Your task to perform on an android device: Open Youtube and go to the subscriptions tab Image 0: 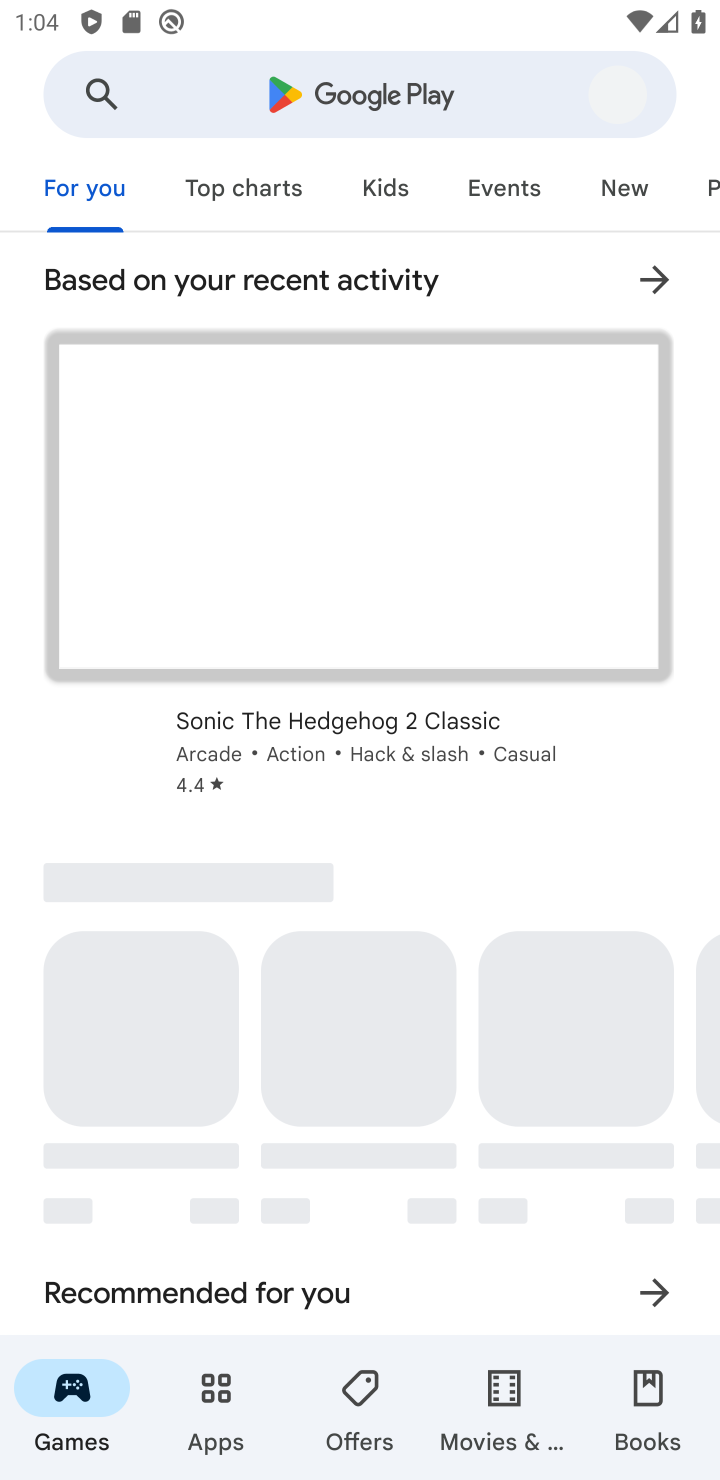
Step 0: press home button
Your task to perform on an android device: Open Youtube and go to the subscriptions tab Image 1: 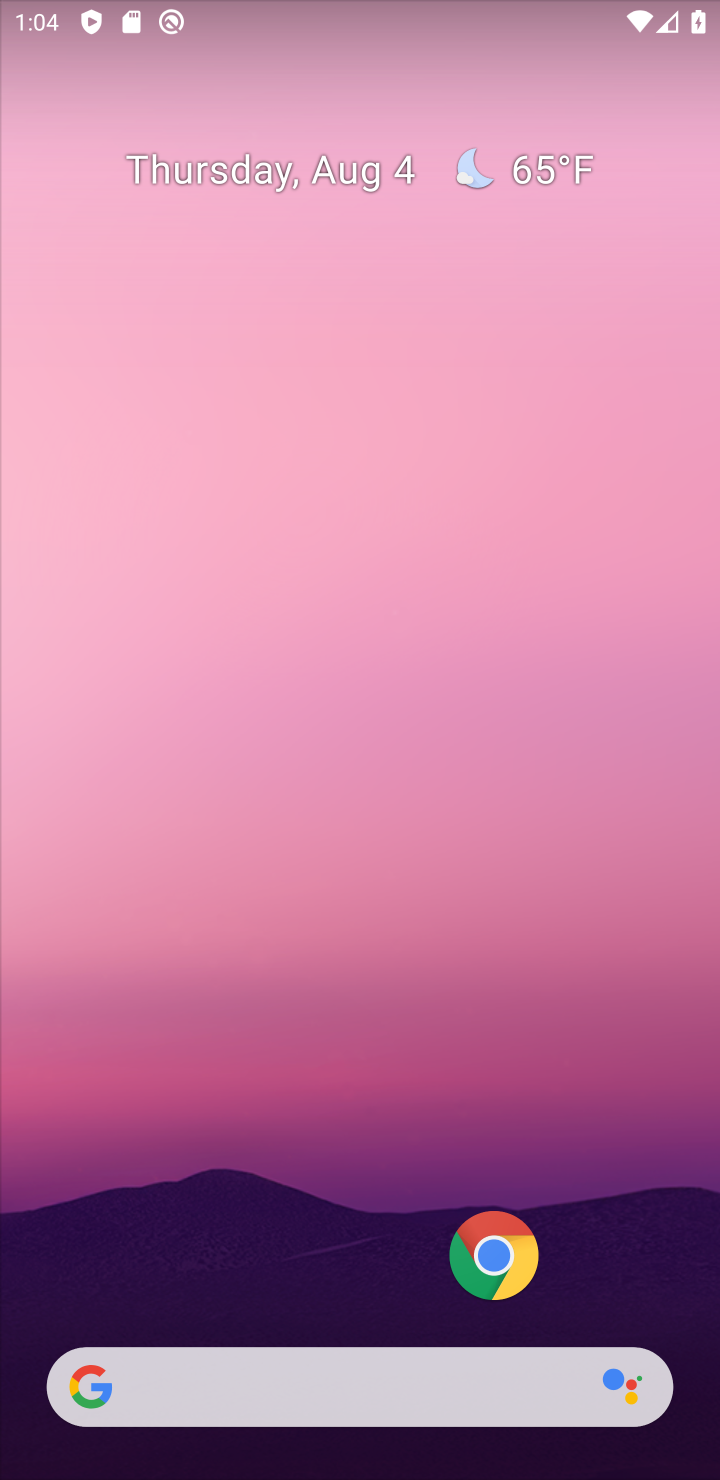
Step 1: drag from (364, 940) to (444, 238)
Your task to perform on an android device: Open Youtube and go to the subscriptions tab Image 2: 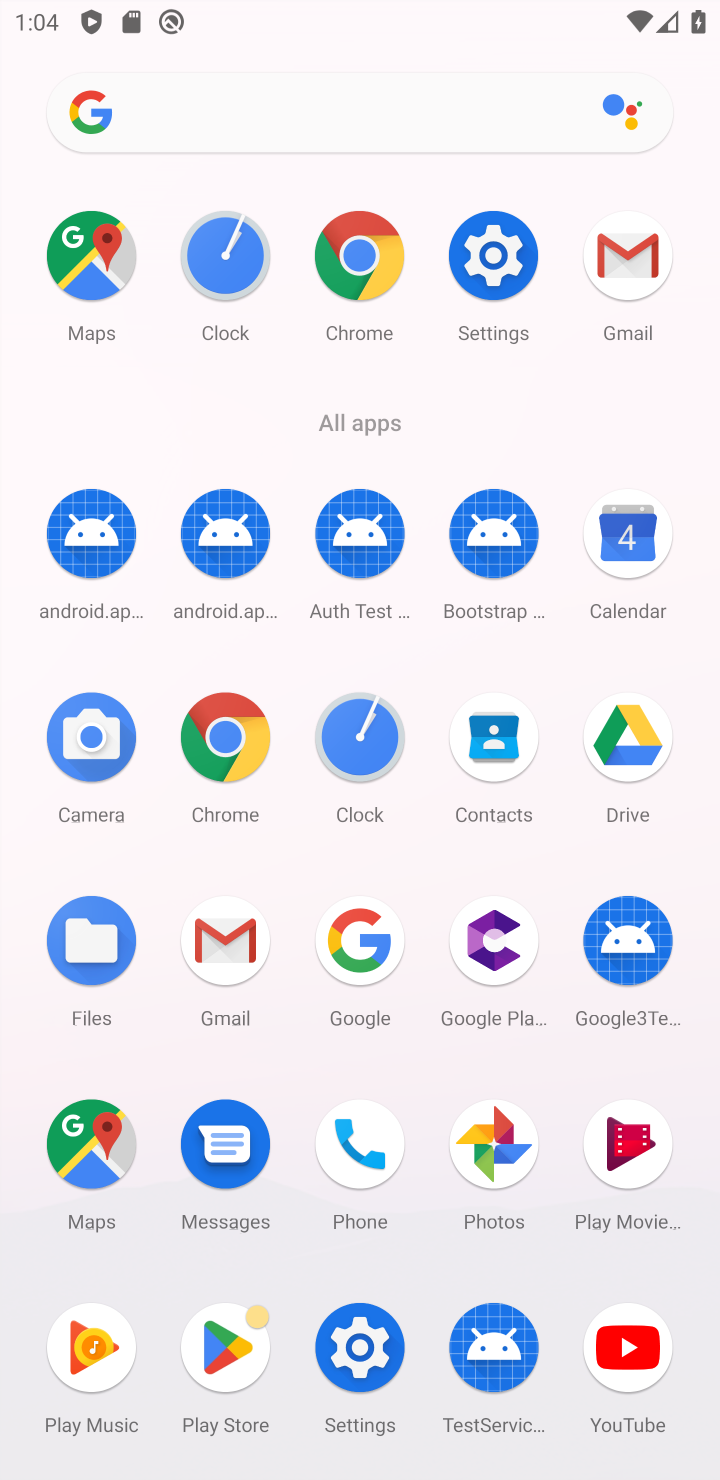
Step 2: click (631, 1373)
Your task to perform on an android device: Open Youtube and go to the subscriptions tab Image 3: 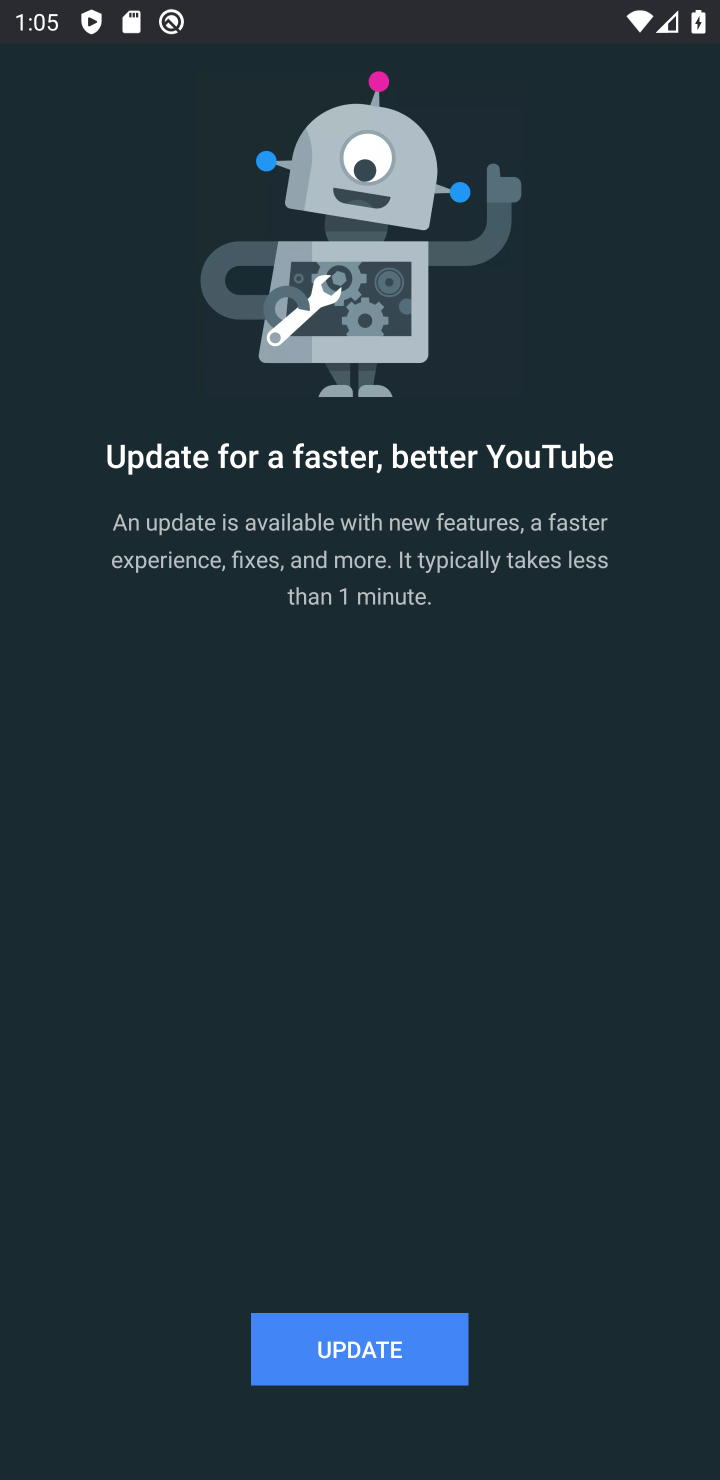
Step 3: click (391, 1346)
Your task to perform on an android device: Open Youtube and go to the subscriptions tab Image 4: 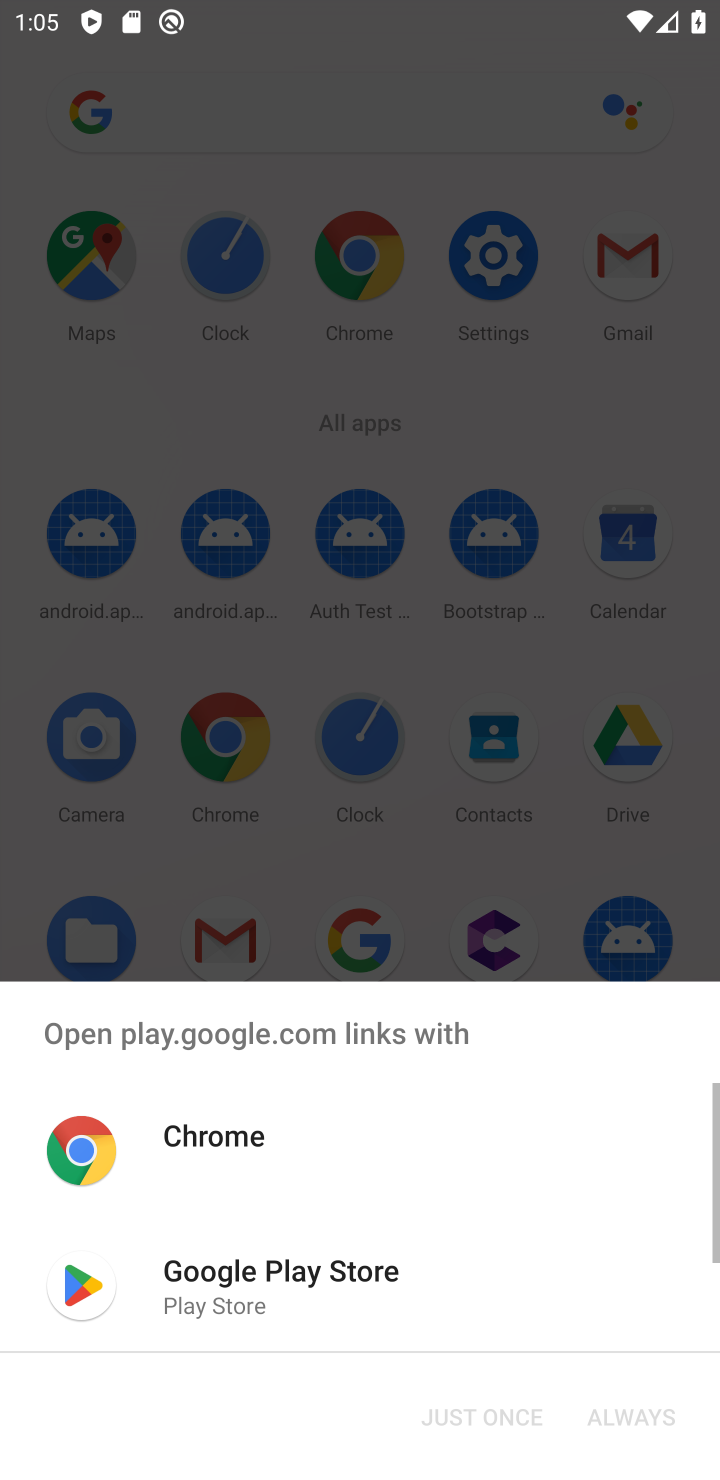
Step 4: click (193, 1143)
Your task to perform on an android device: Open Youtube and go to the subscriptions tab Image 5: 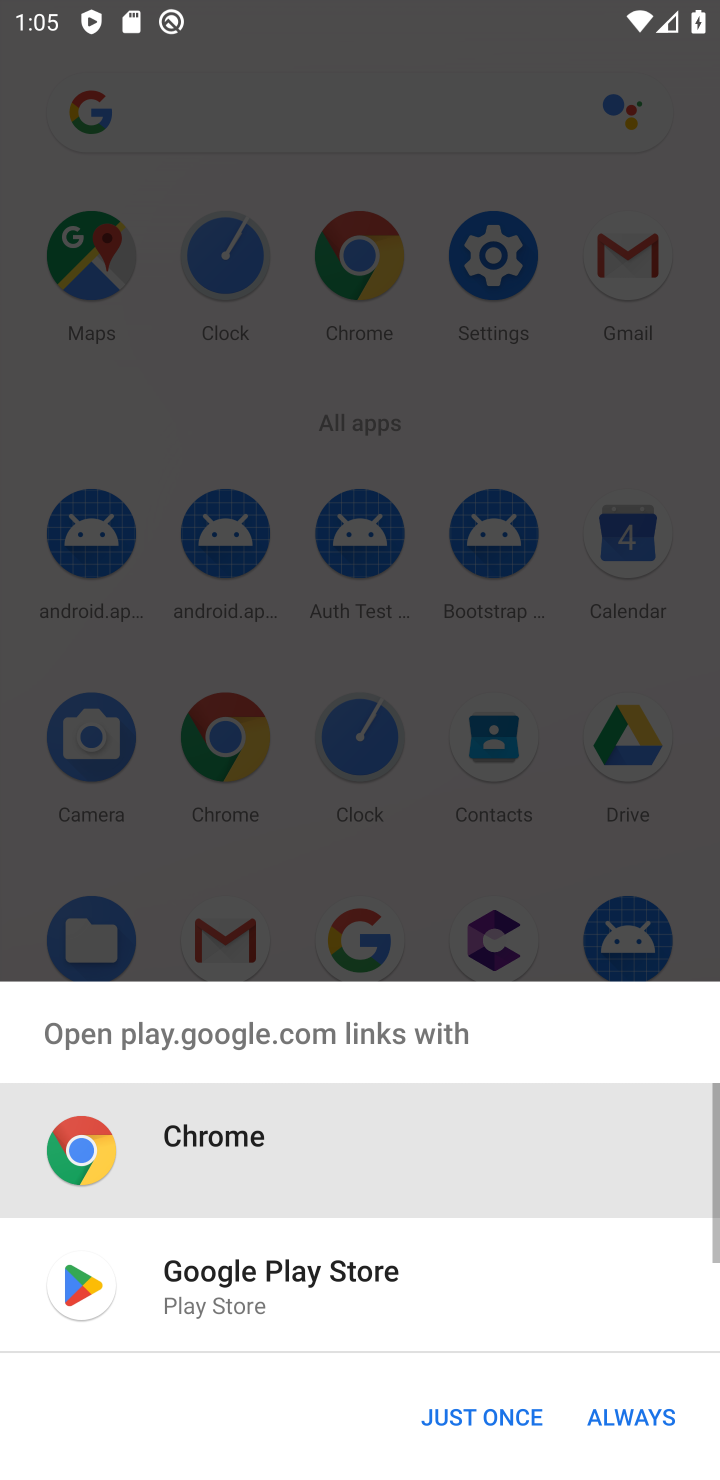
Step 5: click (475, 1420)
Your task to perform on an android device: Open Youtube and go to the subscriptions tab Image 6: 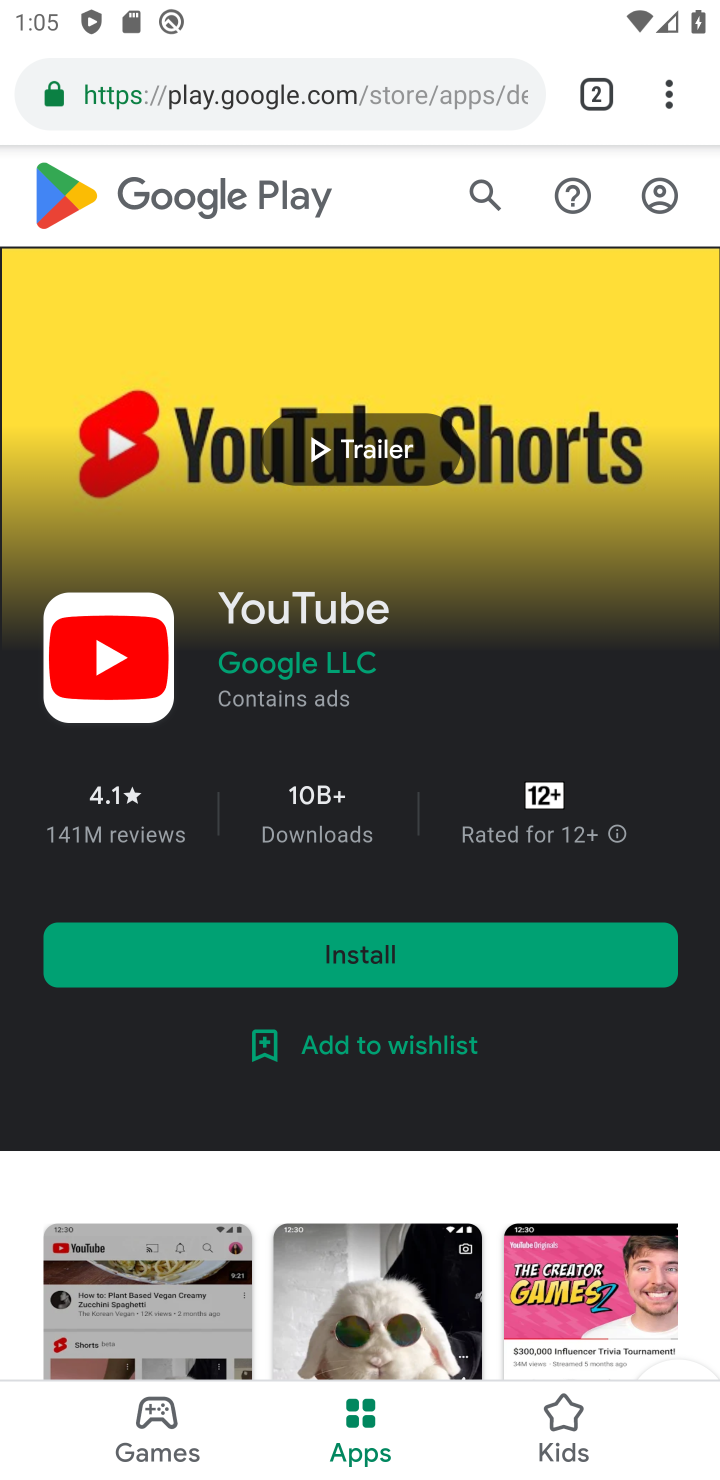
Step 6: press back button
Your task to perform on an android device: Open Youtube and go to the subscriptions tab Image 7: 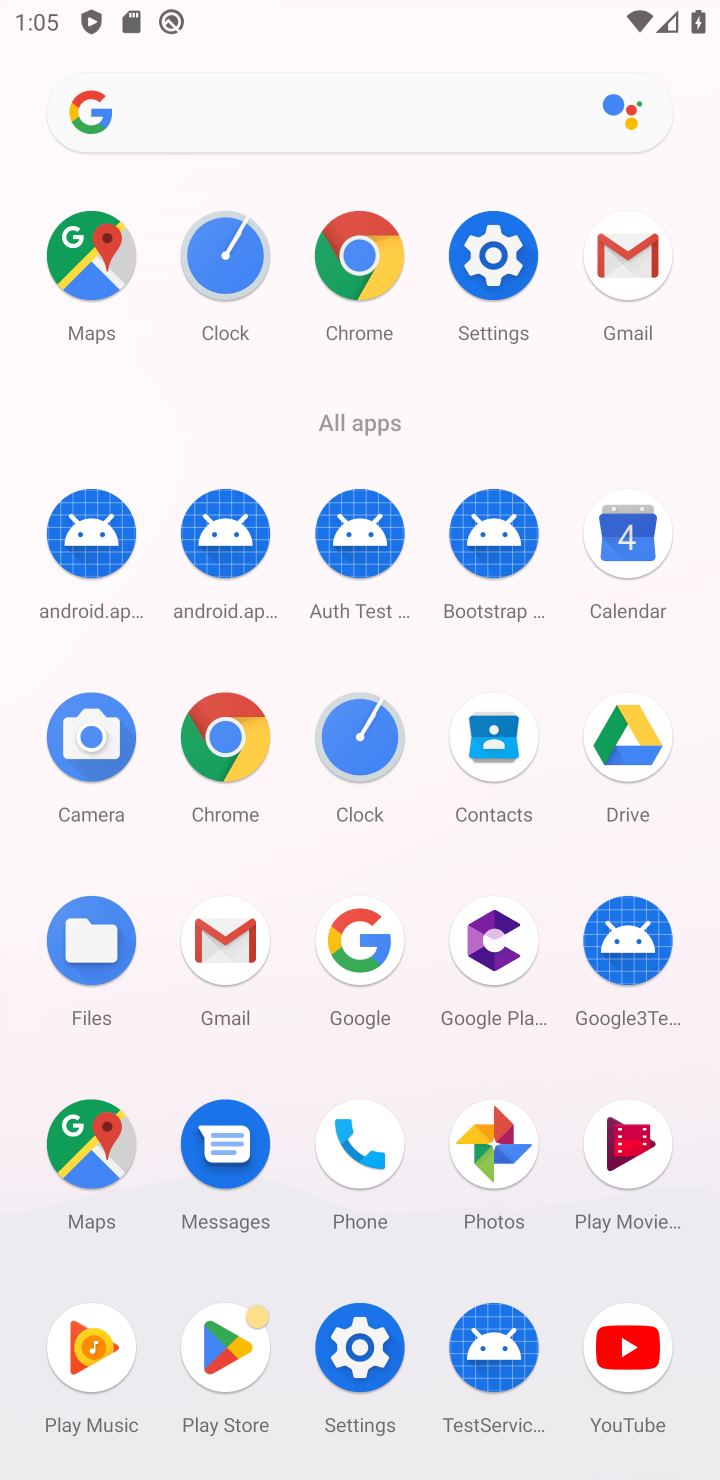
Step 7: click (631, 1381)
Your task to perform on an android device: Open Youtube and go to the subscriptions tab Image 8: 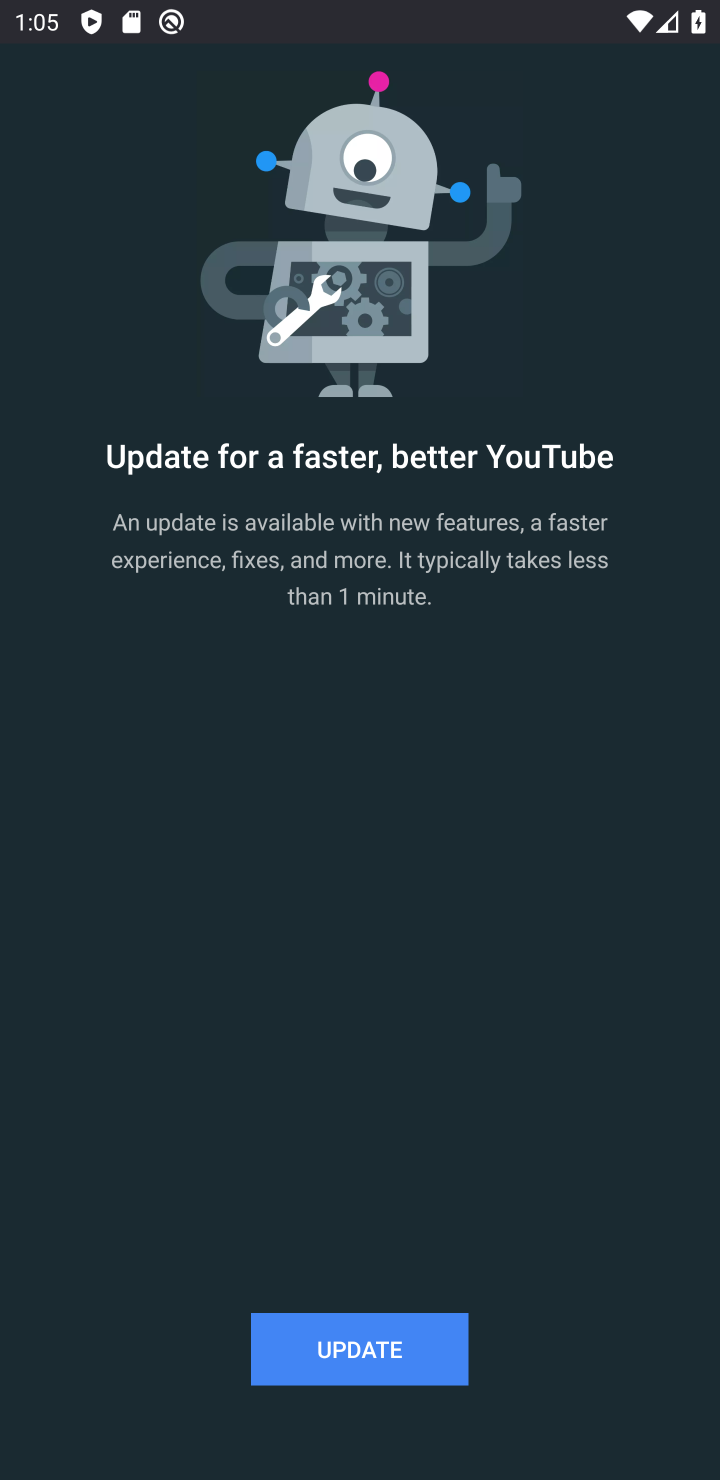
Step 8: click (502, 1371)
Your task to perform on an android device: Open Youtube and go to the subscriptions tab Image 9: 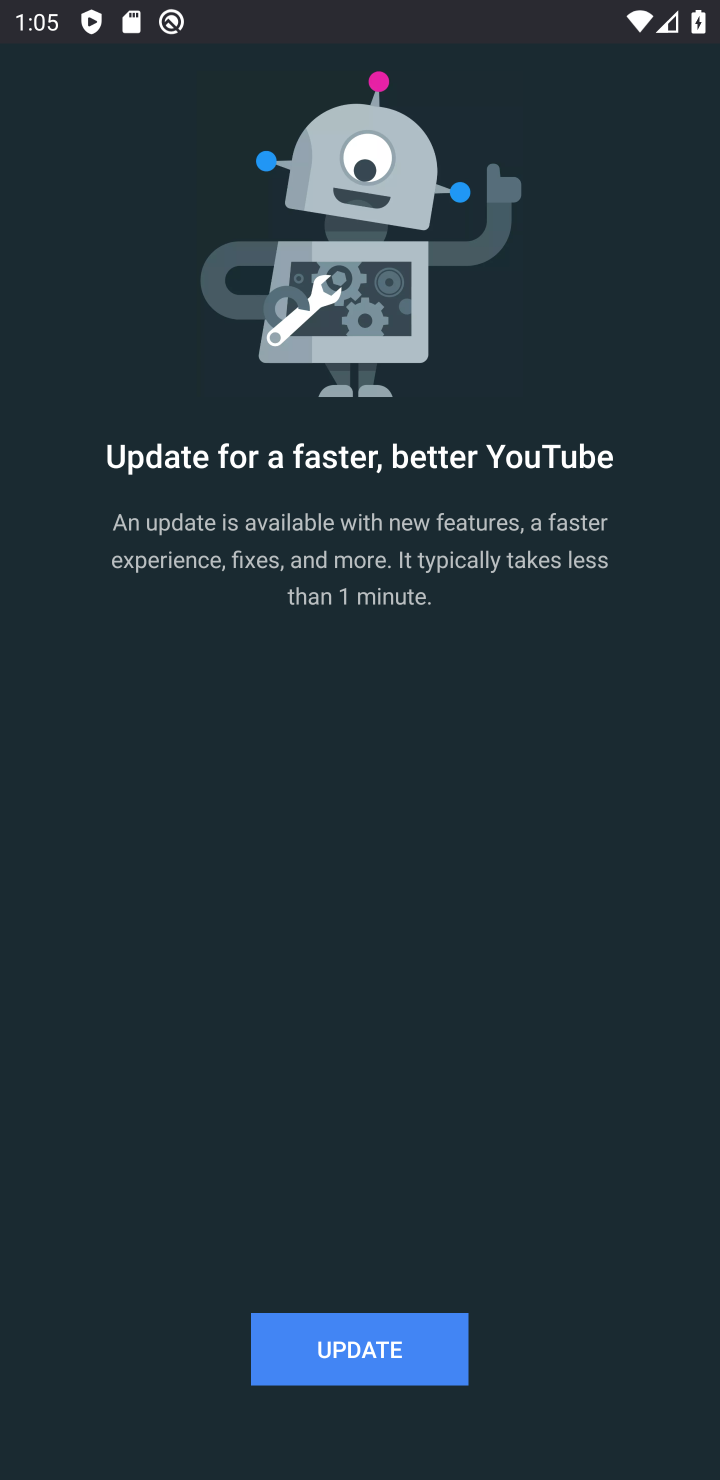
Step 9: click (434, 1362)
Your task to perform on an android device: Open Youtube and go to the subscriptions tab Image 10: 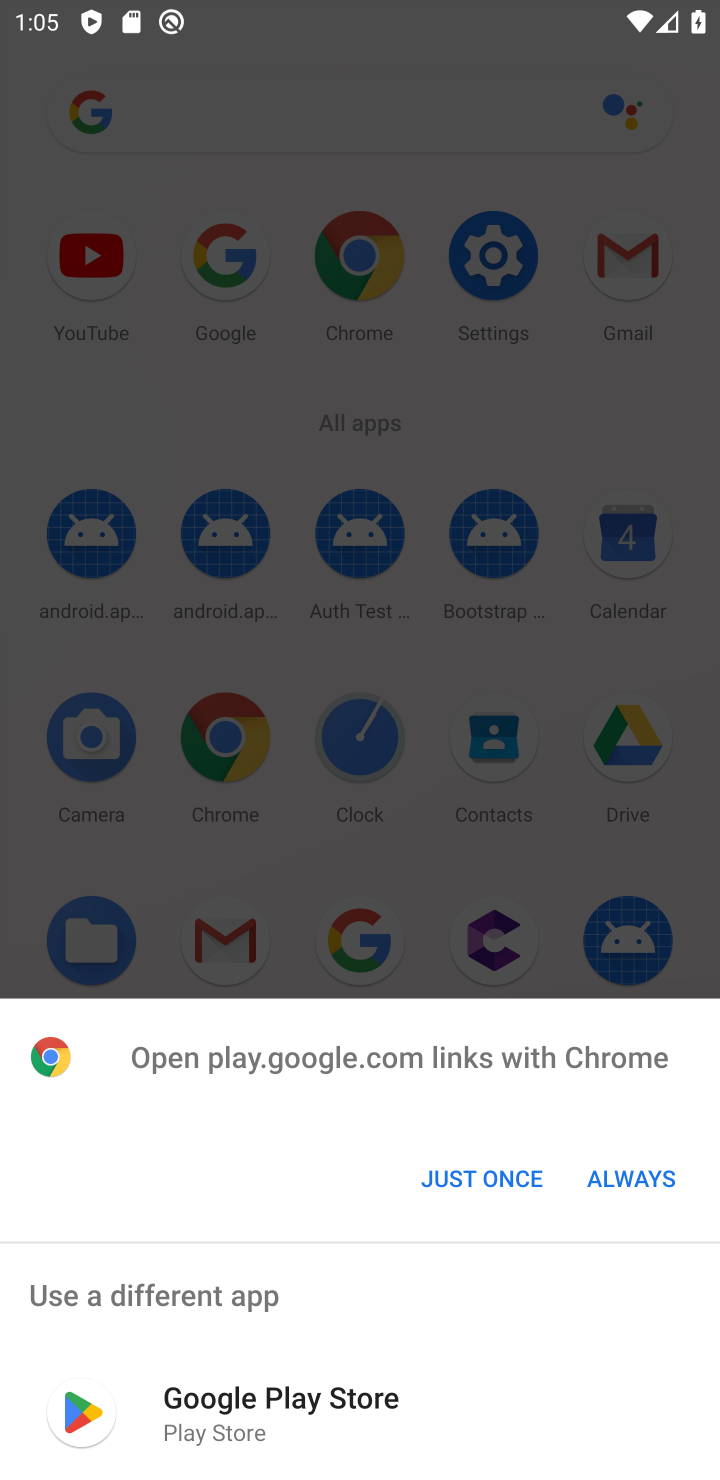
Step 10: click (204, 1398)
Your task to perform on an android device: Open Youtube and go to the subscriptions tab Image 11: 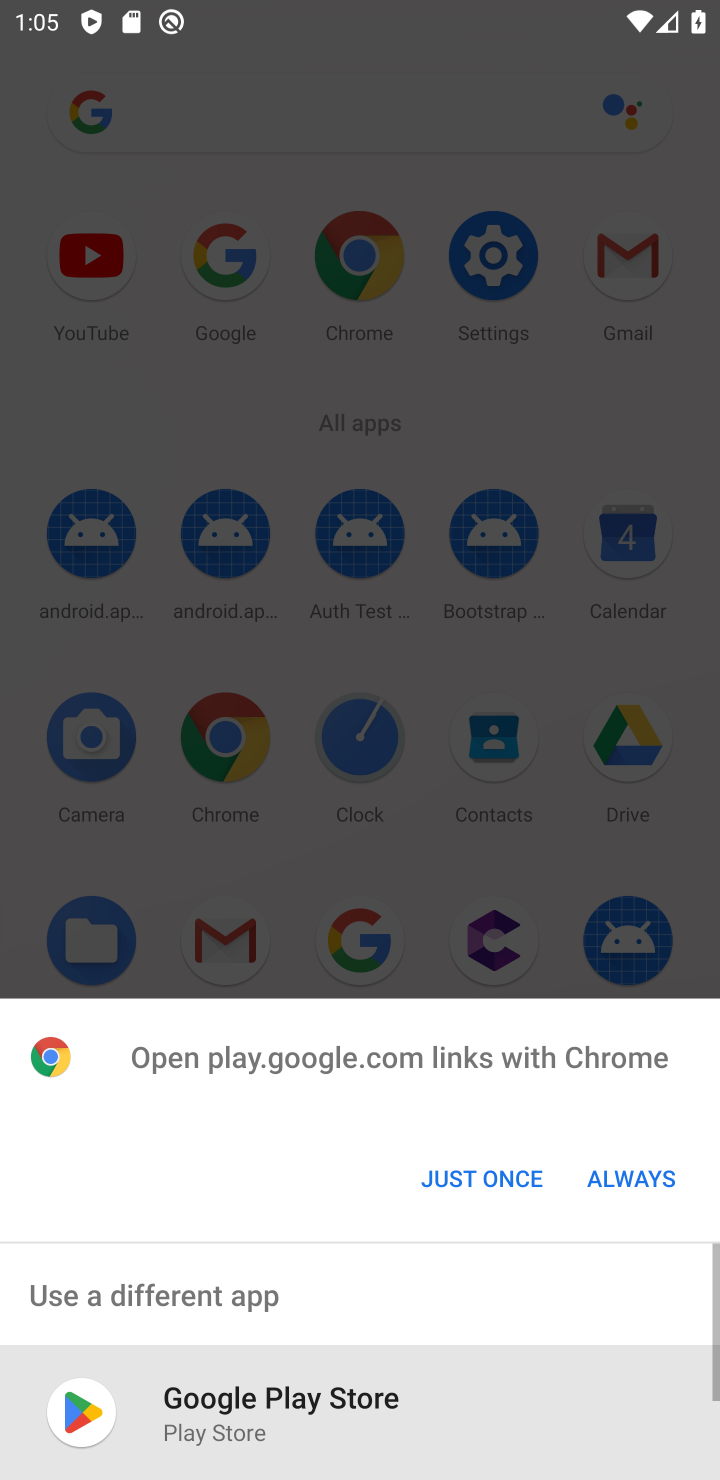
Step 11: click (452, 1174)
Your task to perform on an android device: Open Youtube and go to the subscriptions tab Image 12: 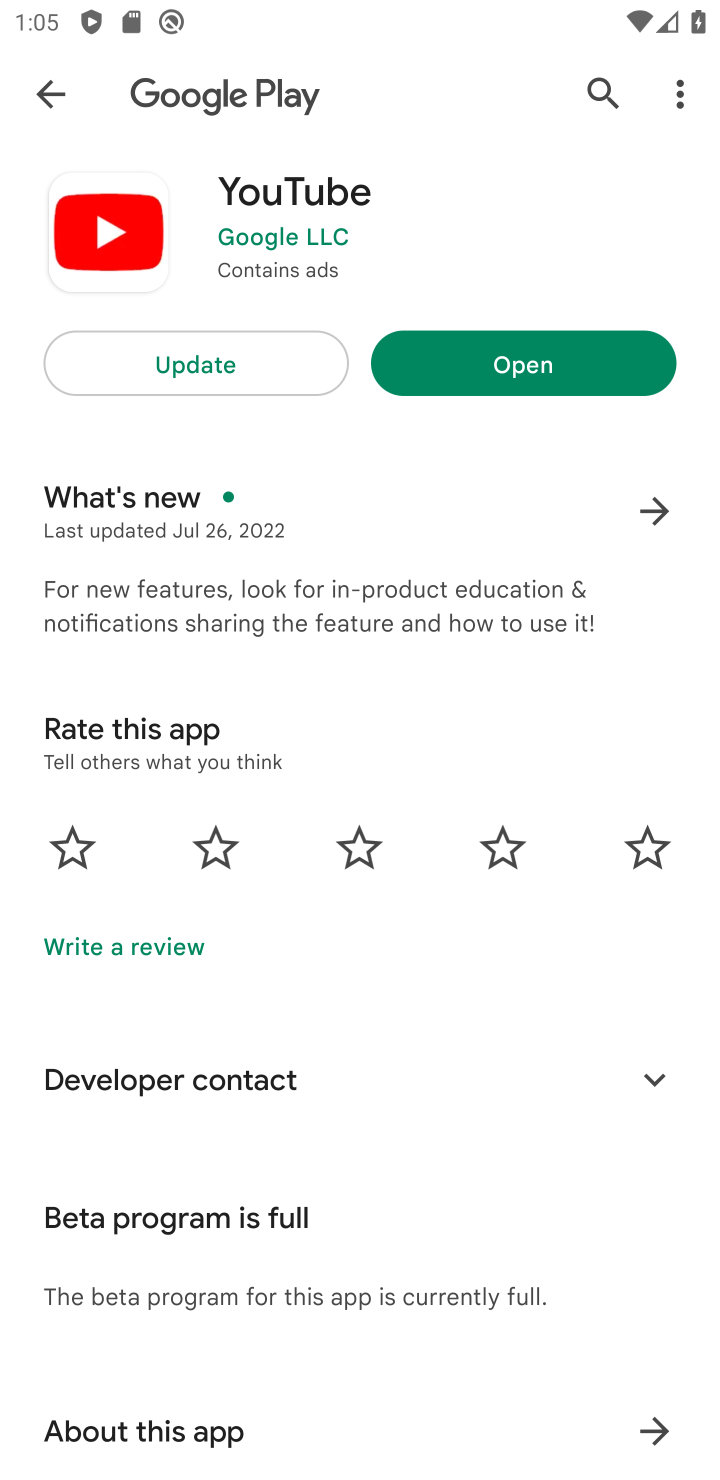
Step 12: click (207, 380)
Your task to perform on an android device: Open Youtube and go to the subscriptions tab Image 13: 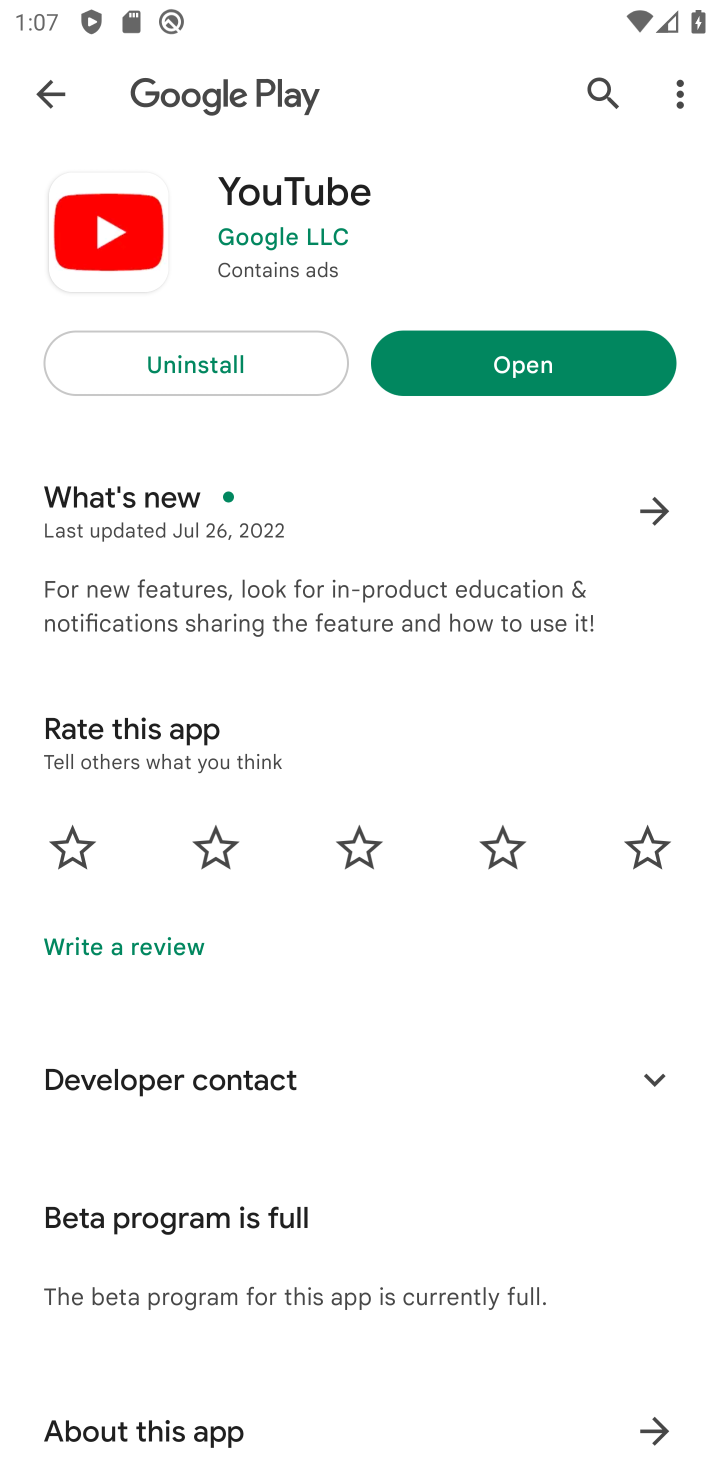
Step 13: click (518, 365)
Your task to perform on an android device: Open Youtube and go to the subscriptions tab Image 14: 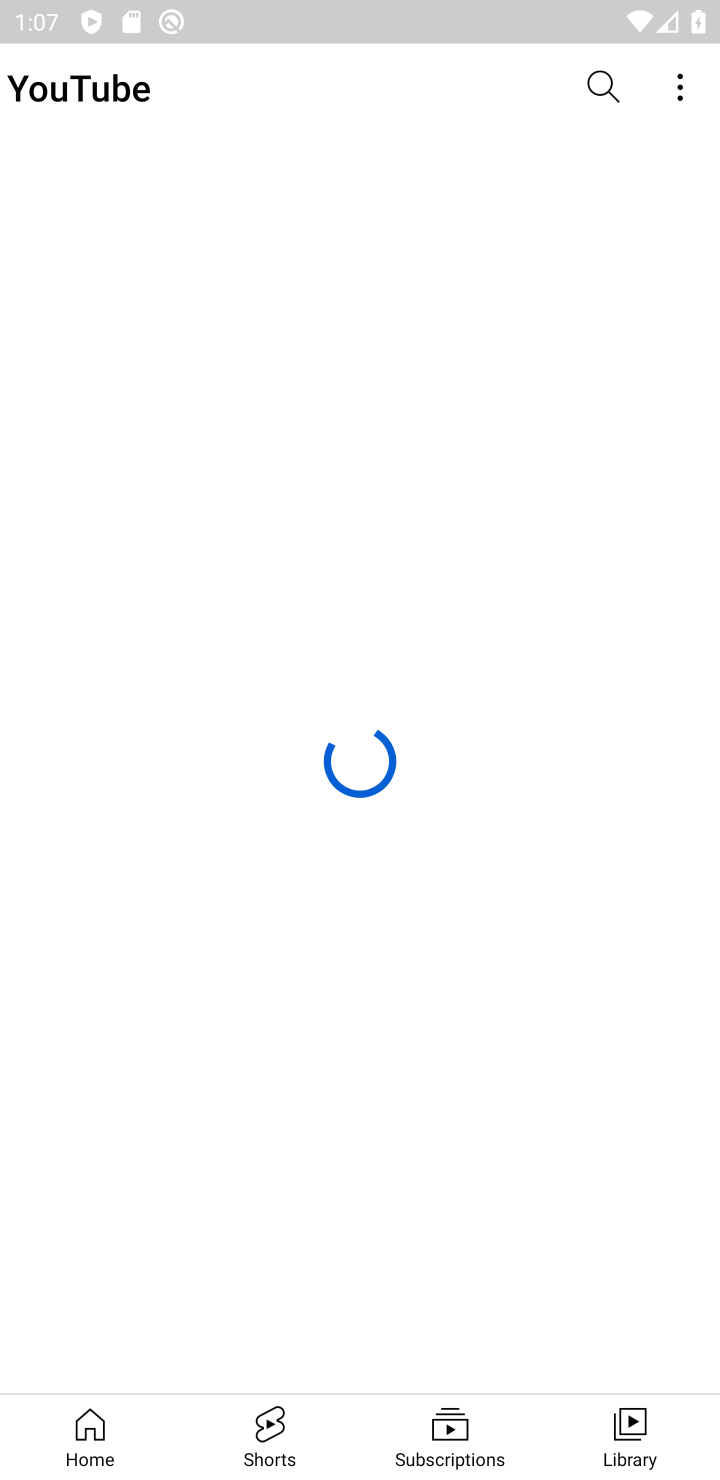
Step 14: click (473, 1472)
Your task to perform on an android device: Open Youtube and go to the subscriptions tab Image 15: 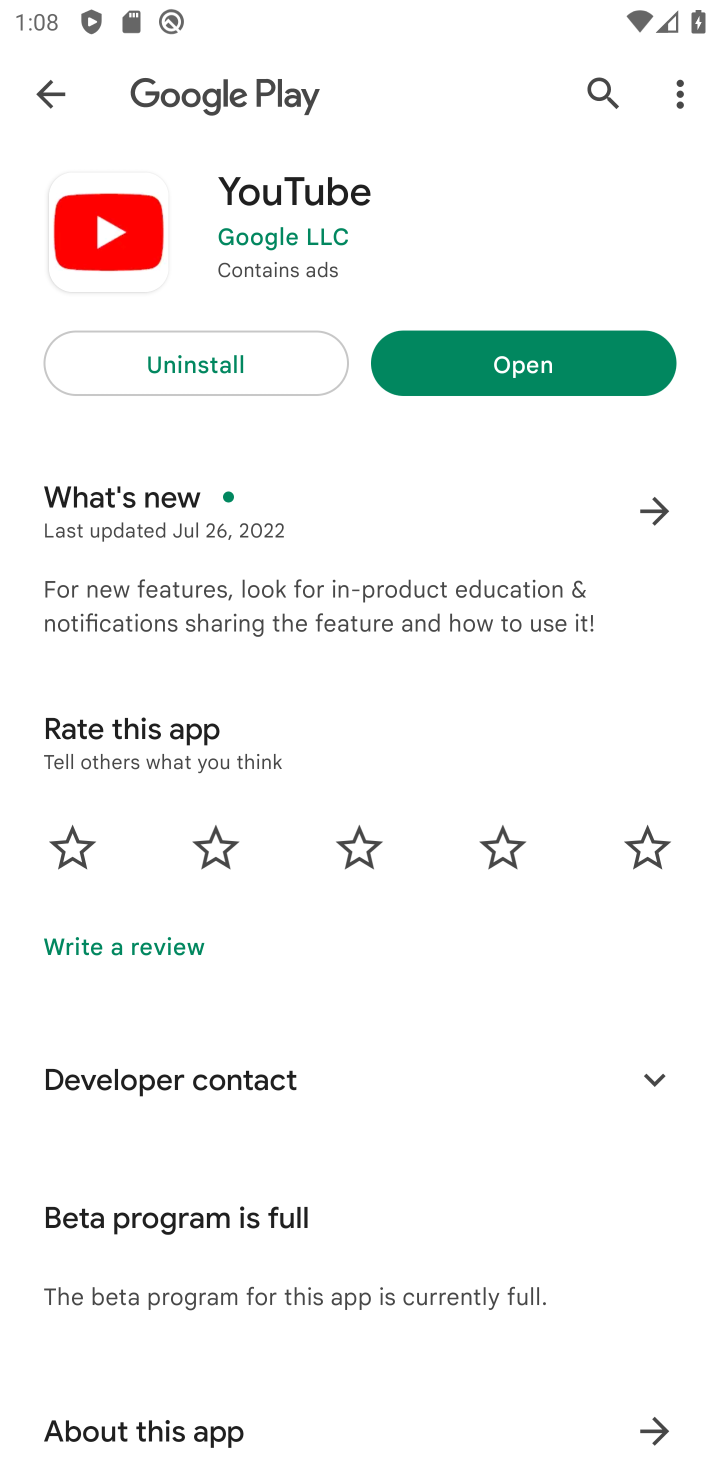
Step 15: click (456, 371)
Your task to perform on an android device: Open Youtube and go to the subscriptions tab Image 16: 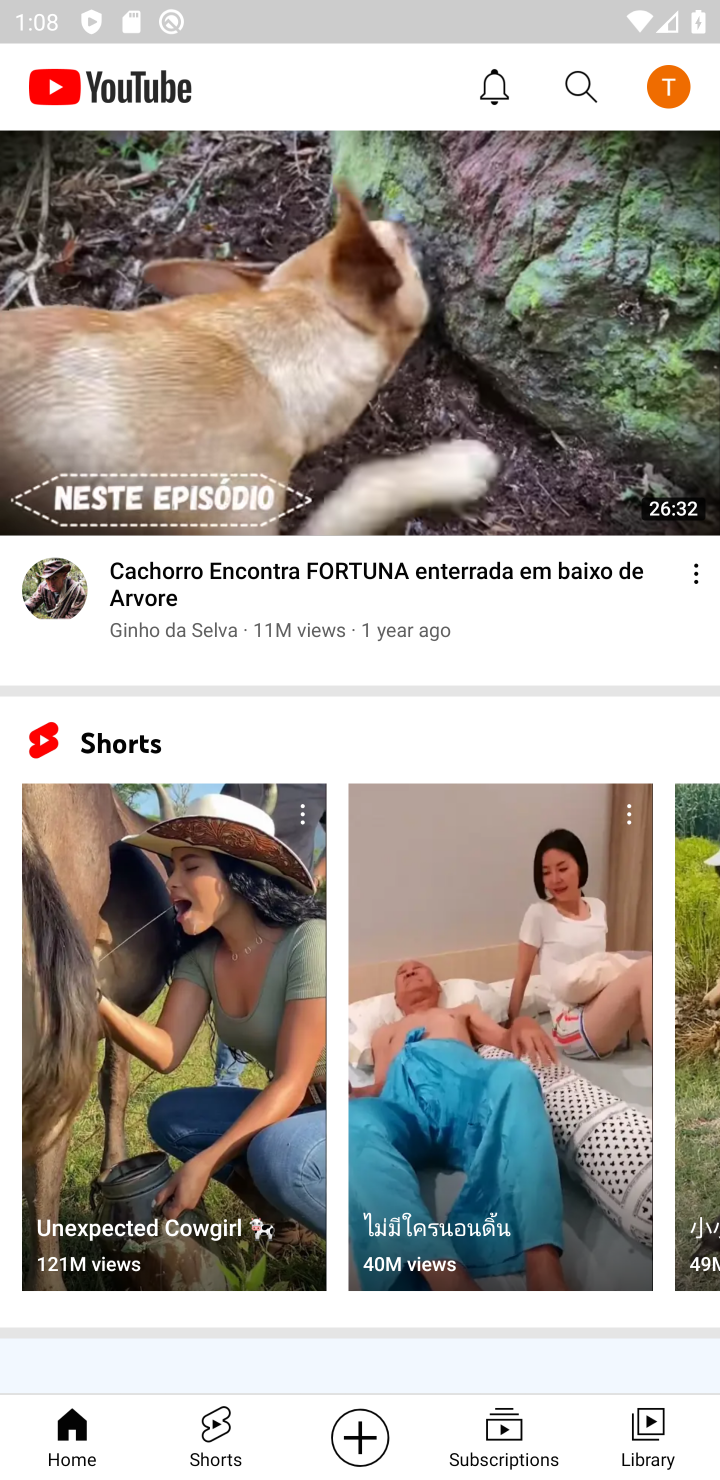
Step 16: click (524, 1431)
Your task to perform on an android device: Open Youtube and go to the subscriptions tab Image 17: 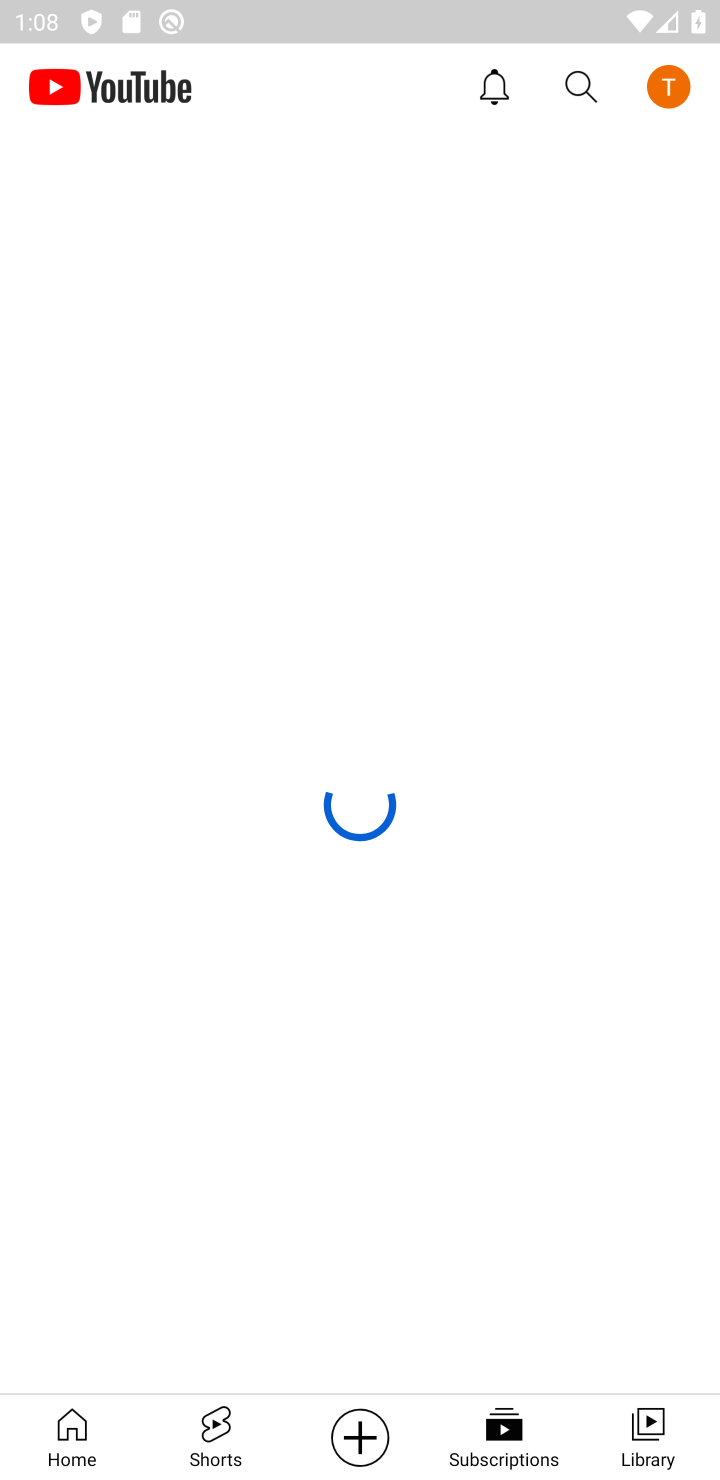
Step 17: click (495, 1443)
Your task to perform on an android device: Open Youtube and go to the subscriptions tab Image 18: 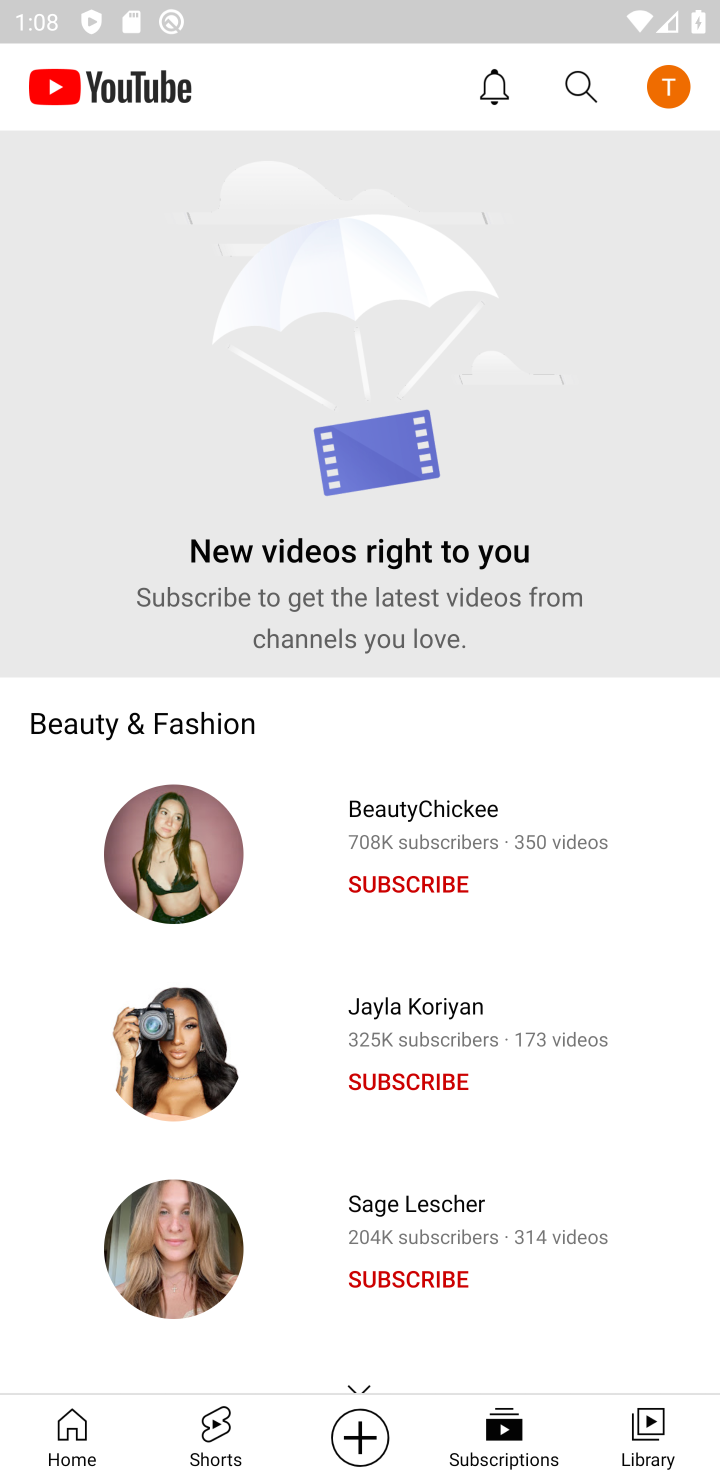
Step 18: task complete